Your task to perform on an android device: Is it going to rain this weekend? Image 0: 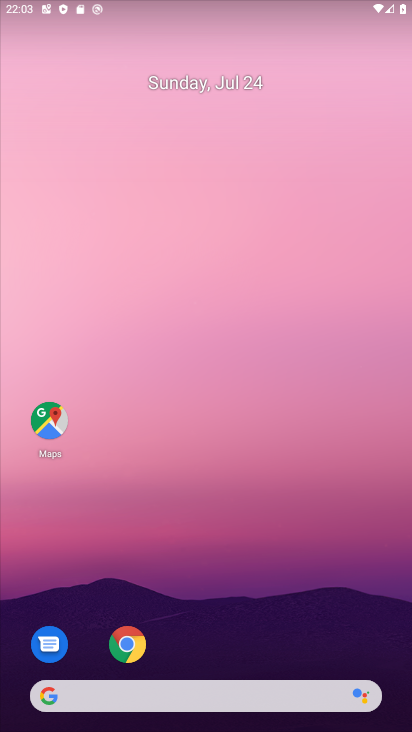
Step 0: click (340, 40)
Your task to perform on an android device: Is it going to rain this weekend? Image 1: 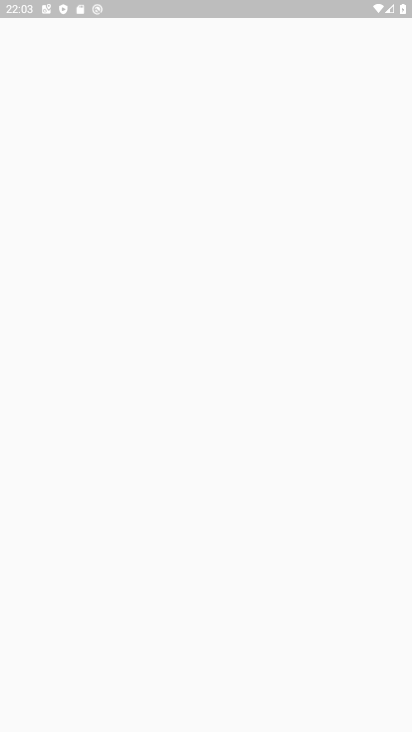
Step 1: press home button
Your task to perform on an android device: Is it going to rain this weekend? Image 2: 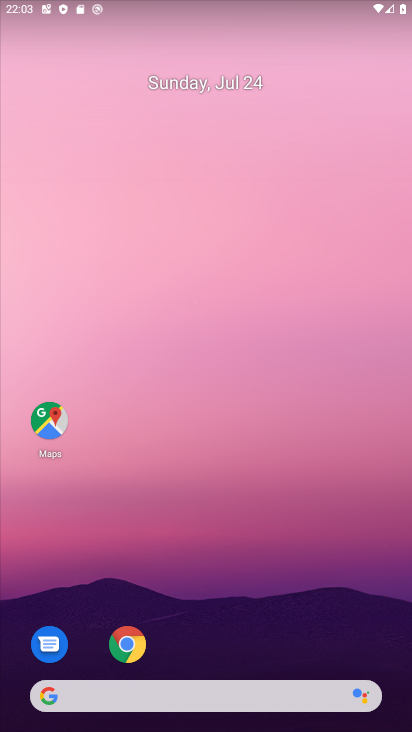
Step 2: click (134, 690)
Your task to perform on an android device: Is it going to rain this weekend? Image 3: 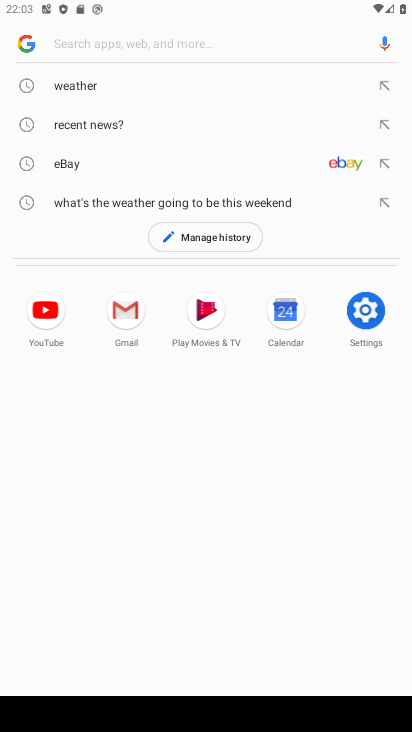
Step 3: click (75, 86)
Your task to perform on an android device: Is it going to rain this weekend? Image 4: 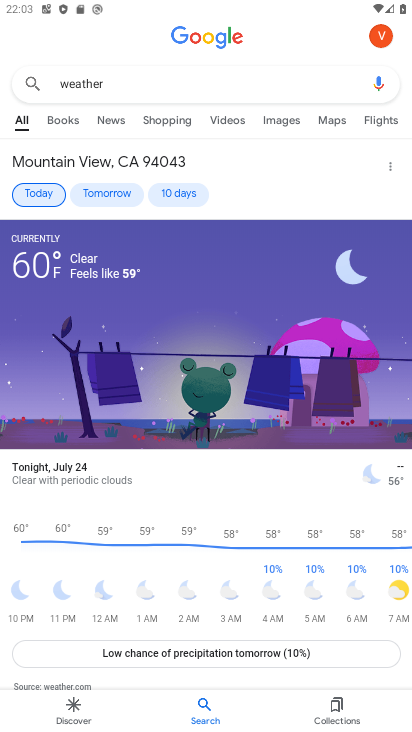
Step 4: click (180, 190)
Your task to perform on an android device: Is it going to rain this weekend? Image 5: 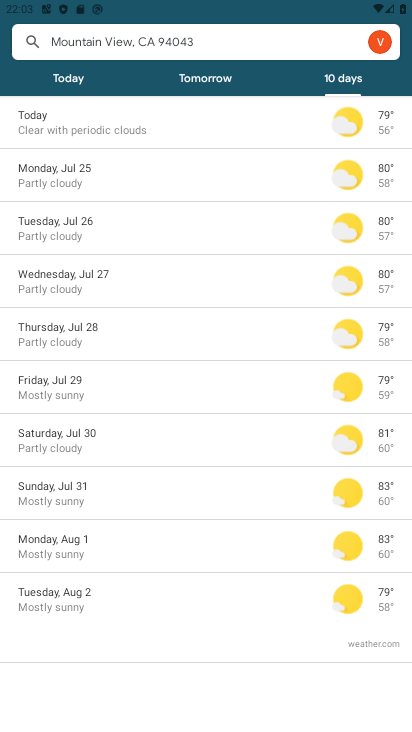
Step 5: task complete